Your task to perform on an android device: Show me recent news Image 0: 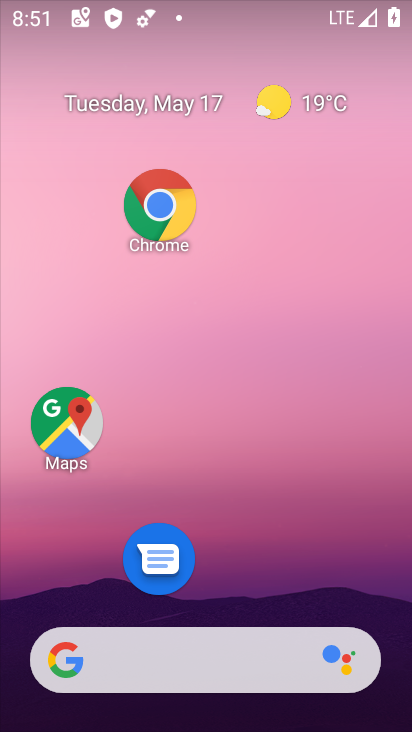
Step 0: drag from (220, 624) to (204, 11)
Your task to perform on an android device: Show me recent news Image 1: 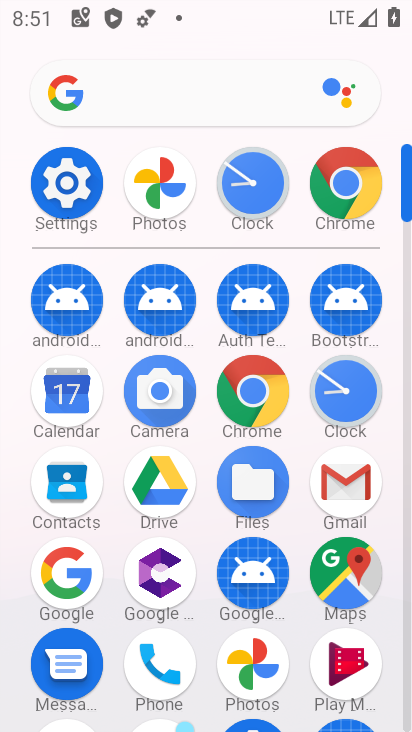
Step 1: click (170, 92)
Your task to perform on an android device: Show me recent news Image 2: 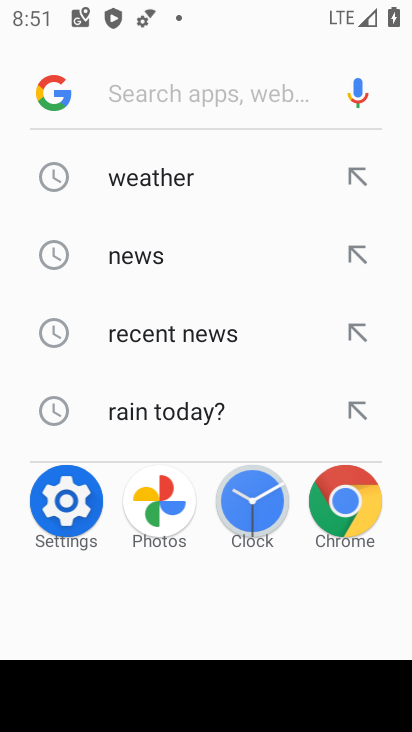
Step 2: click (182, 323)
Your task to perform on an android device: Show me recent news Image 3: 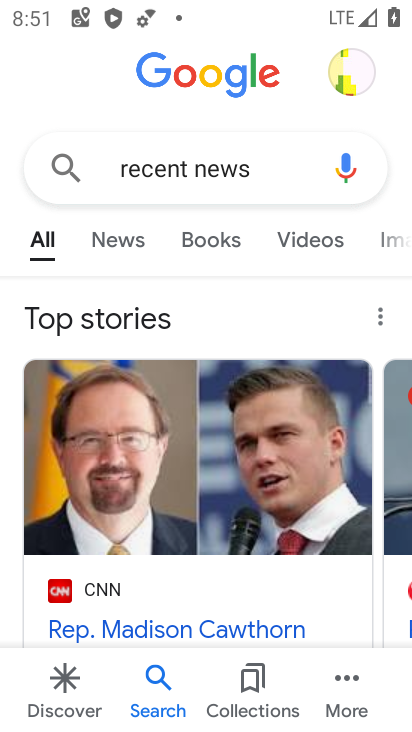
Step 3: task complete